Your task to perform on an android device: Show the shopping cart on walmart. Add usb-a to the cart on walmart Image 0: 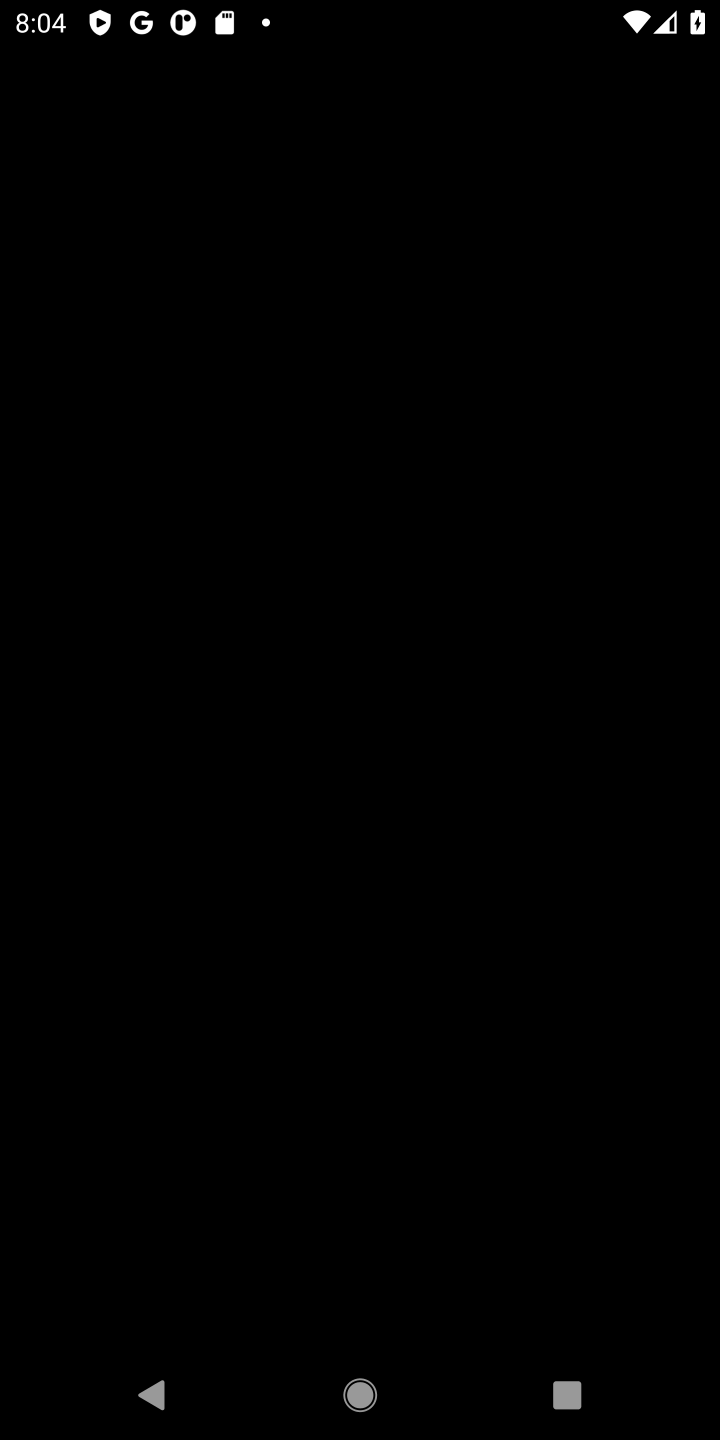
Step 0: press home button
Your task to perform on an android device: Show the shopping cart on walmart. Add usb-a to the cart on walmart Image 1: 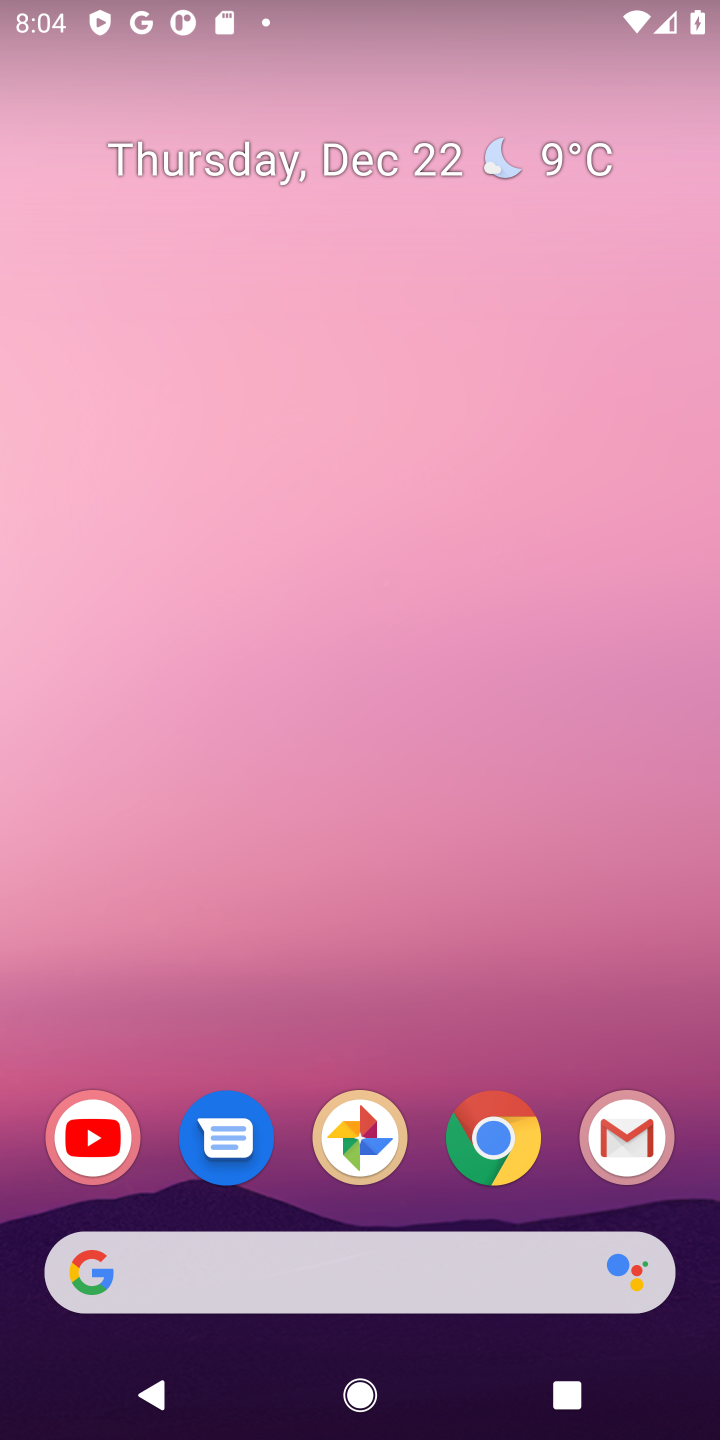
Step 1: click (464, 1124)
Your task to perform on an android device: Show the shopping cart on walmart. Add usb-a to the cart on walmart Image 2: 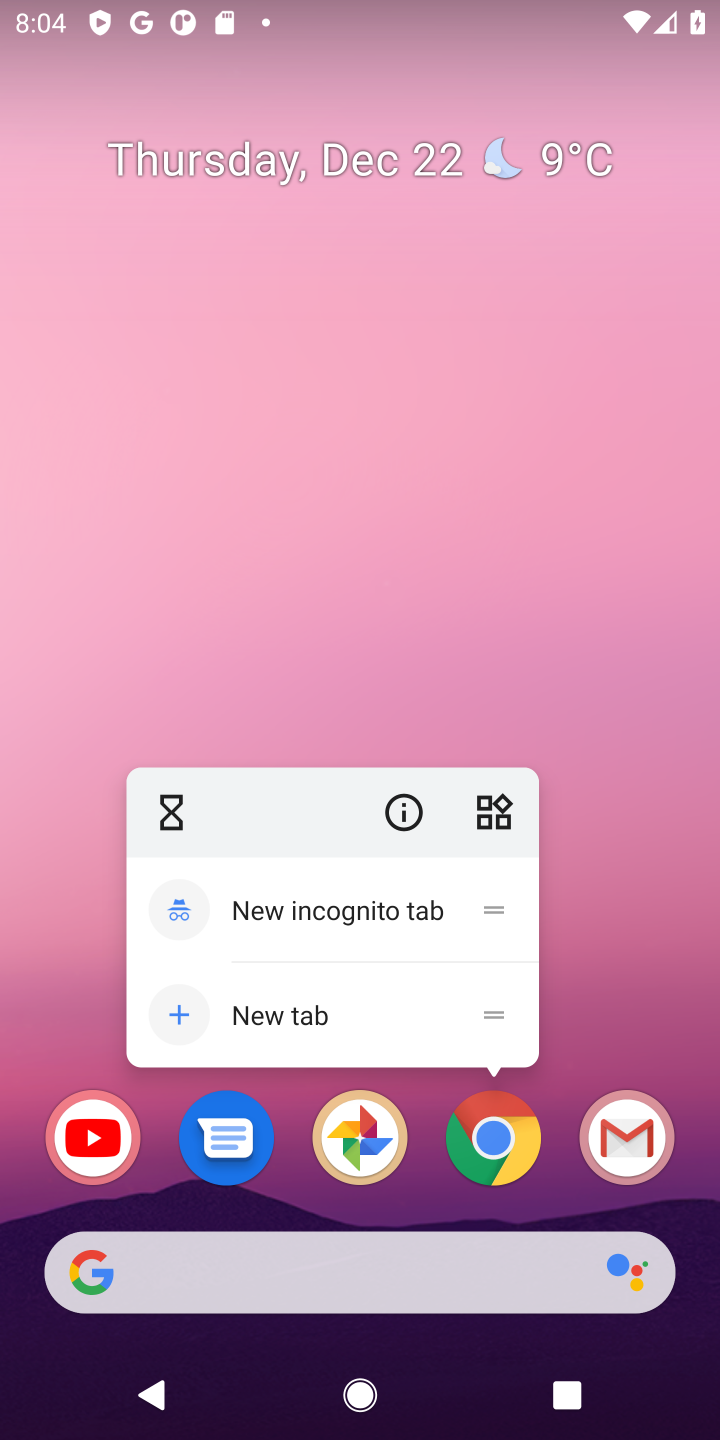
Step 2: click (496, 1176)
Your task to perform on an android device: Show the shopping cart on walmart. Add usb-a to the cart on walmart Image 3: 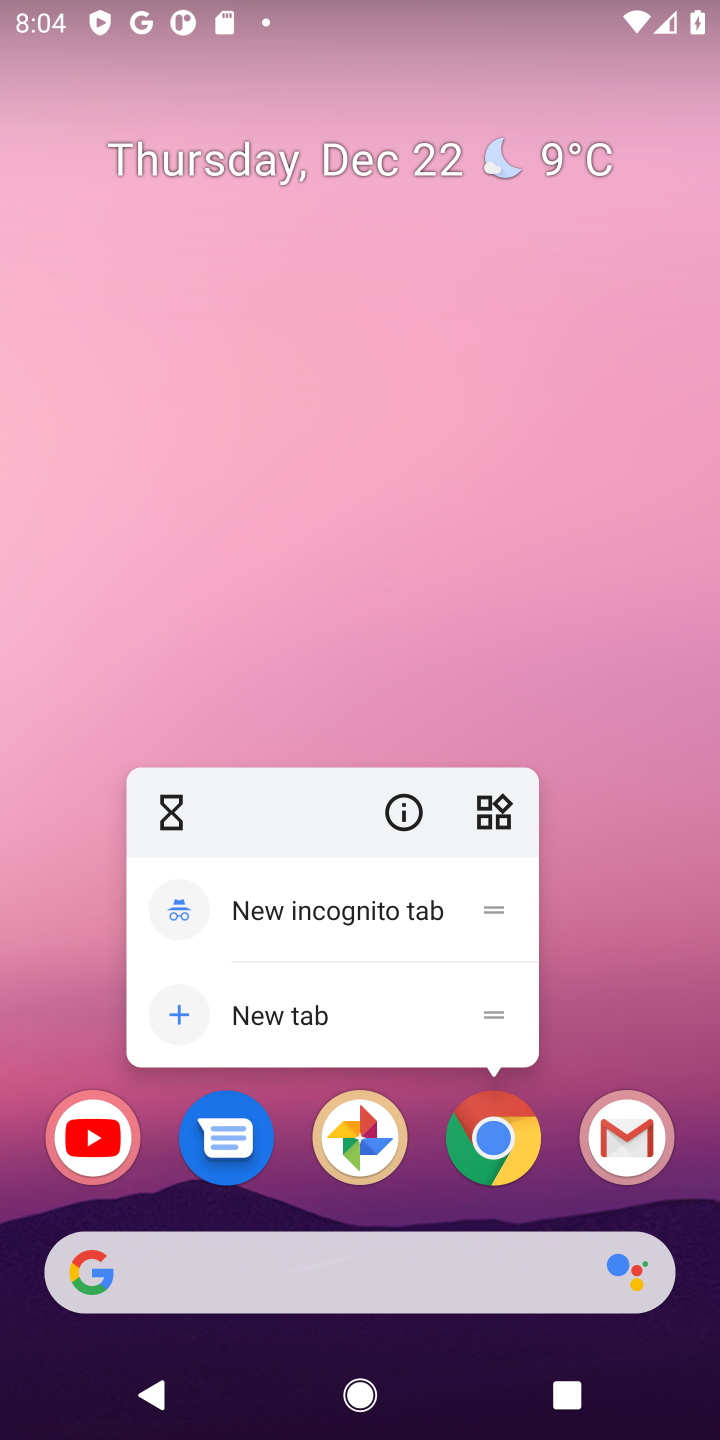
Step 3: click (496, 1176)
Your task to perform on an android device: Show the shopping cart on walmart. Add usb-a to the cart on walmart Image 4: 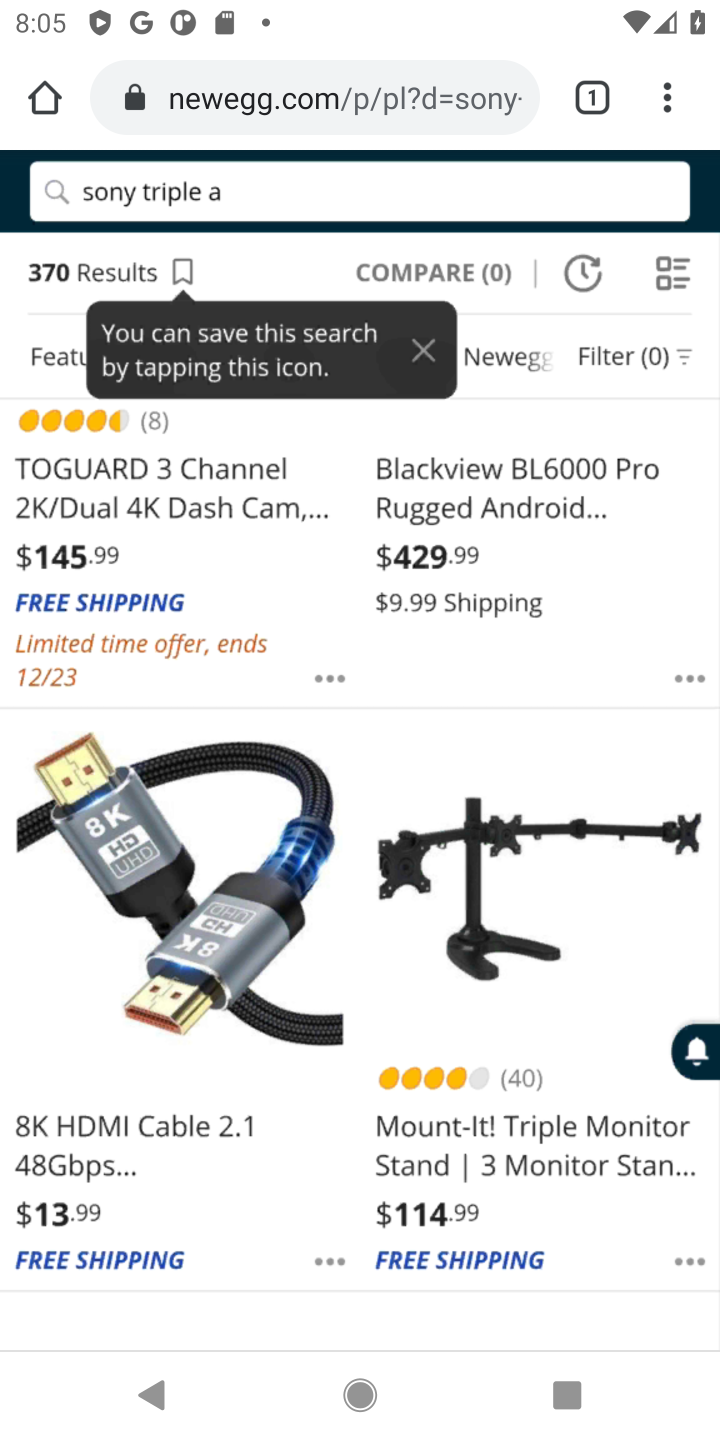
Step 4: click (212, 106)
Your task to perform on an android device: Show the shopping cart on walmart. Add usb-a to the cart on walmart Image 5: 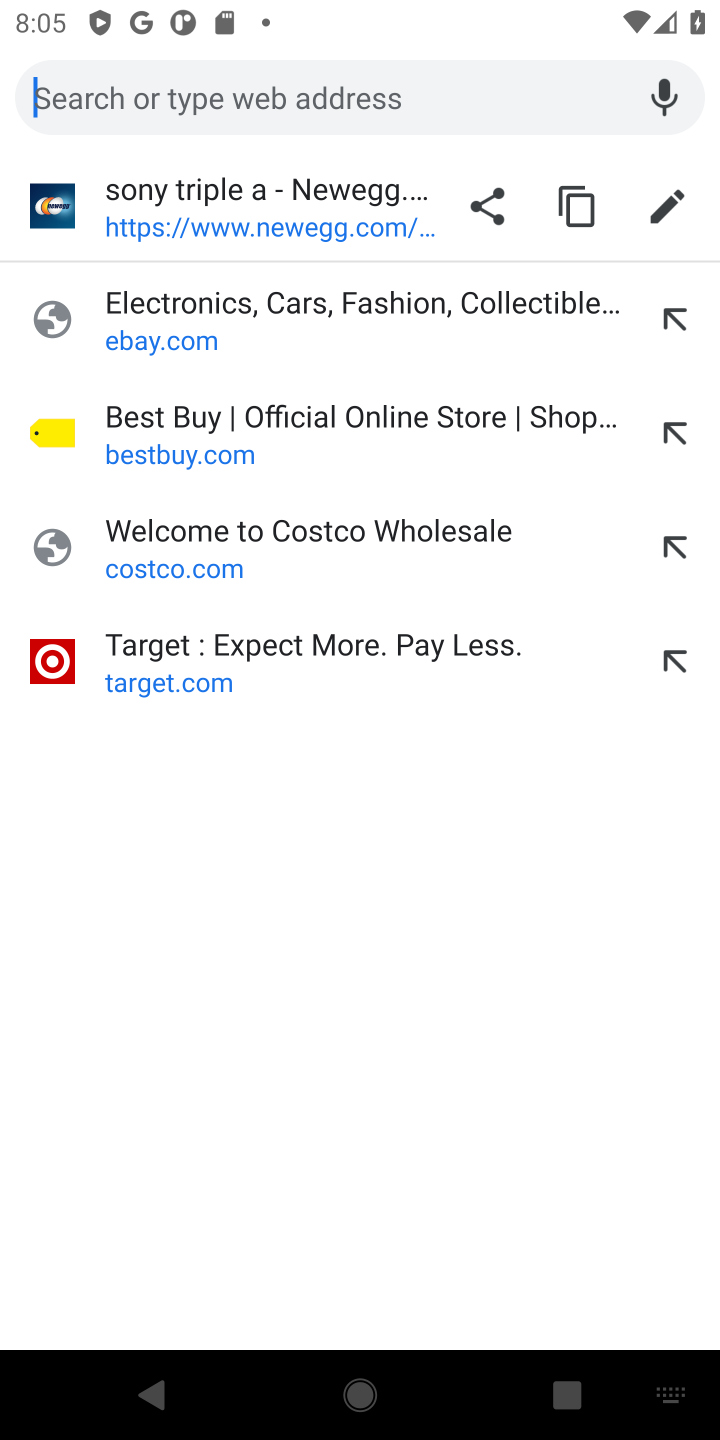
Step 5: type "walmart"
Your task to perform on an android device: Show the shopping cart on walmart. Add usb-a to the cart on walmart Image 6: 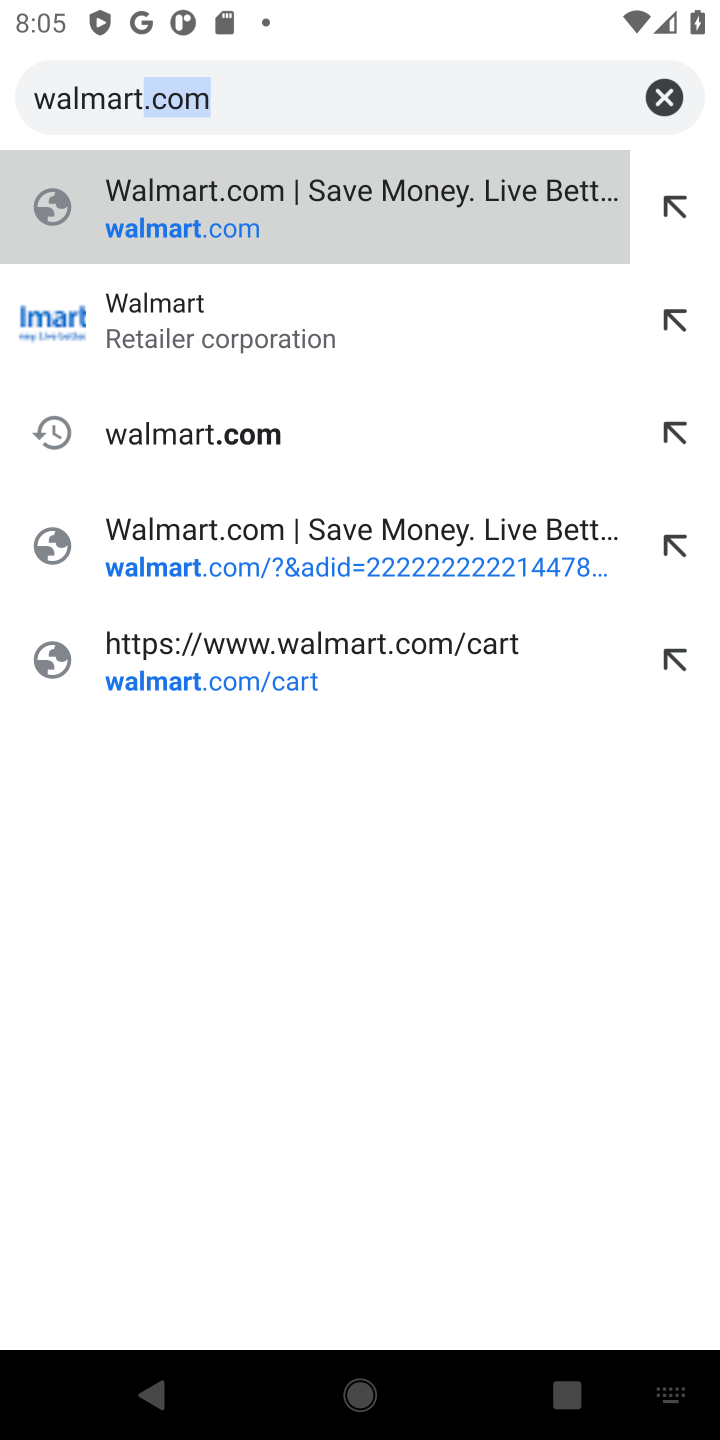
Step 6: click (222, 188)
Your task to perform on an android device: Show the shopping cart on walmart. Add usb-a to the cart on walmart Image 7: 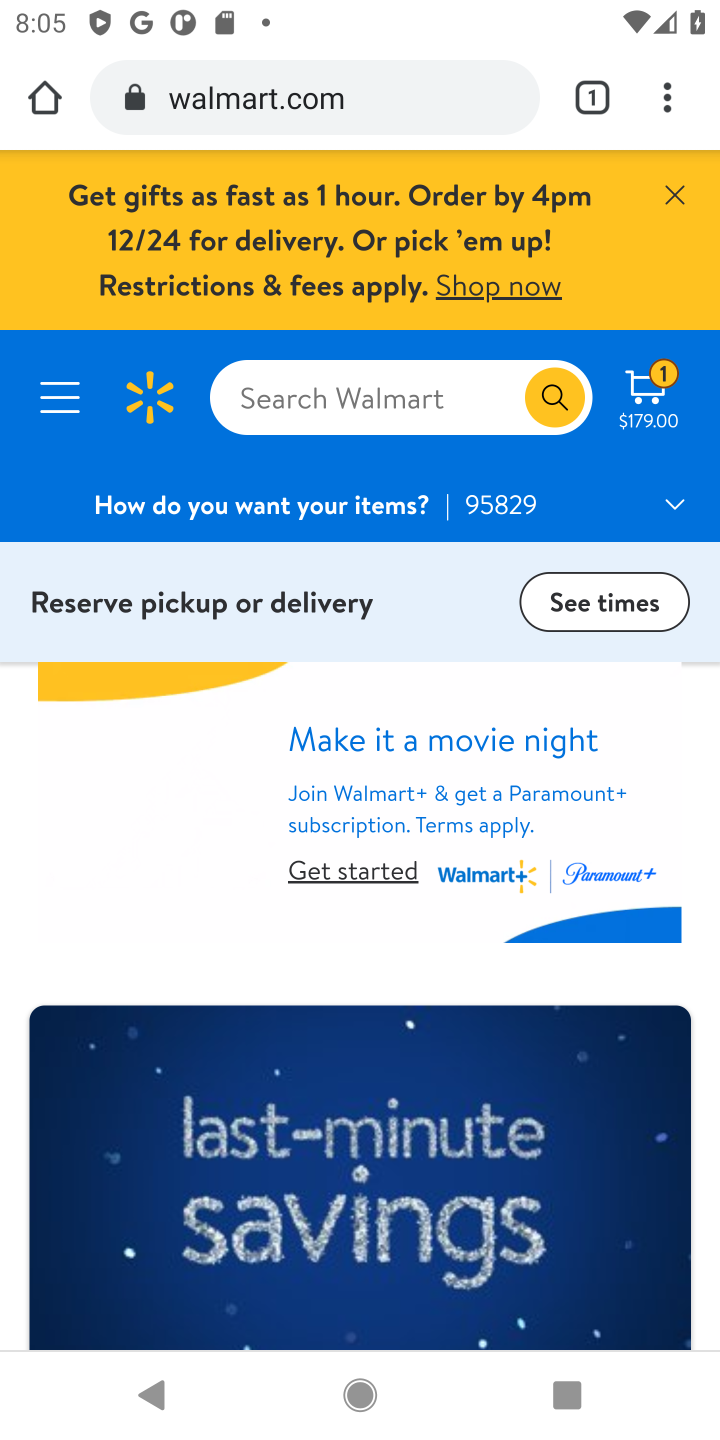
Step 7: click (667, 195)
Your task to perform on an android device: Show the shopping cart on walmart. Add usb-a to the cart on walmart Image 8: 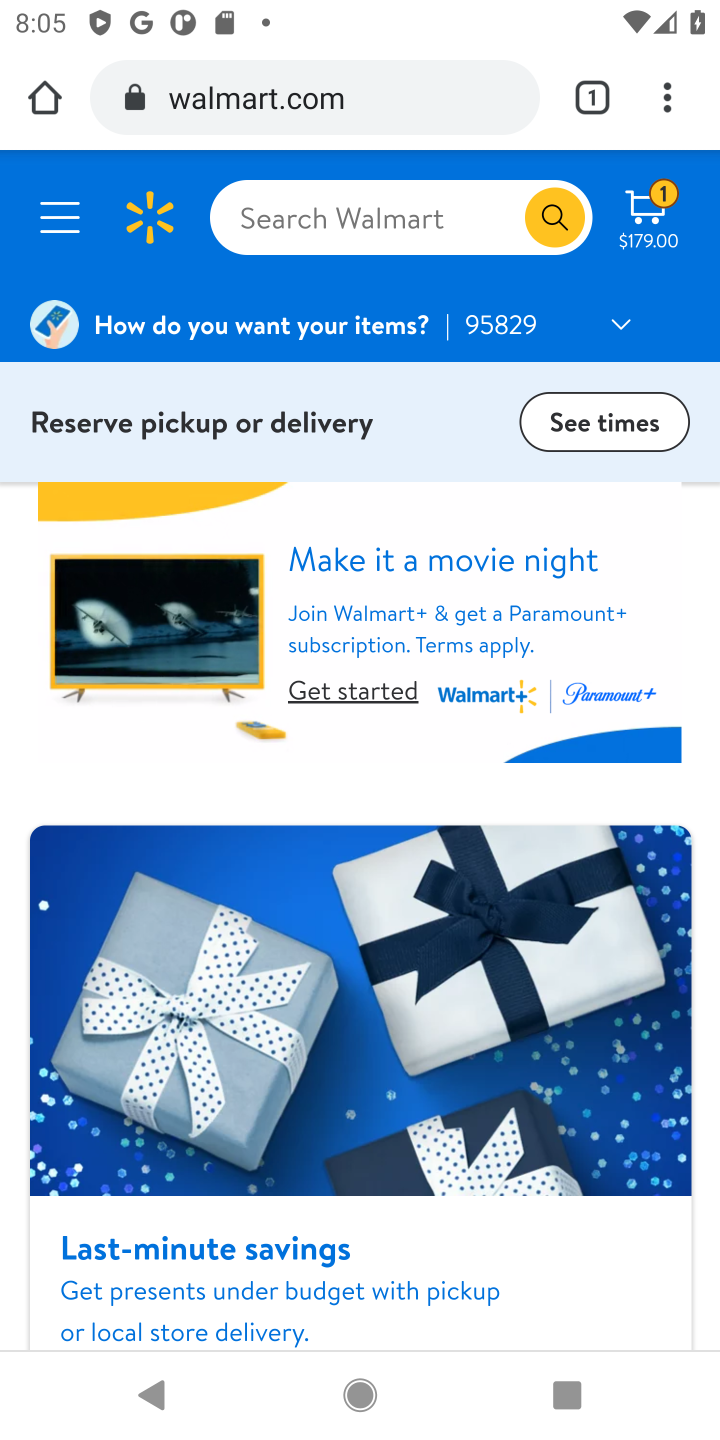
Step 8: click (647, 230)
Your task to perform on an android device: Show the shopping cart on walmart. Add usb-a to the cart on walmart Image 9: 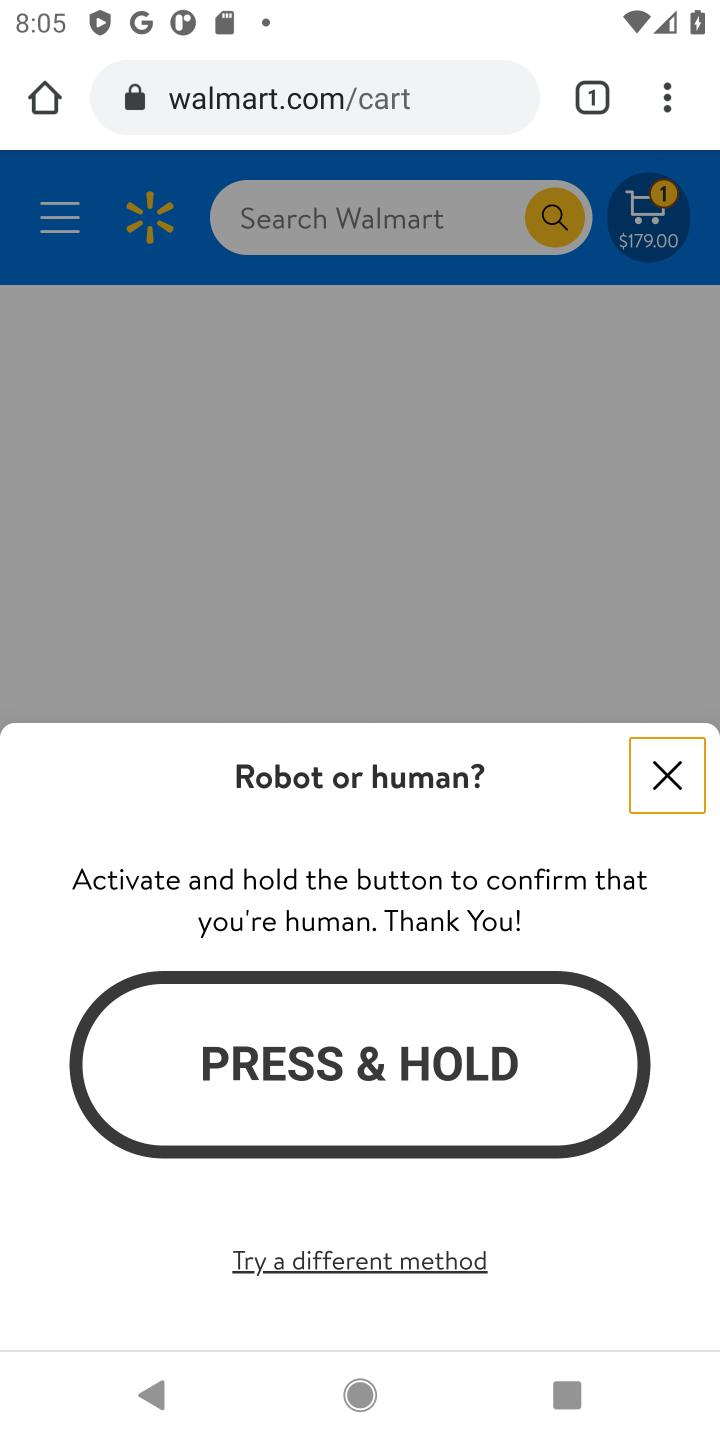
Step 9: click (392, 1093)
Your task to perform on an android device: Show the shopping cart on walmart. Add usb-a to the cart on walmart Image 10: 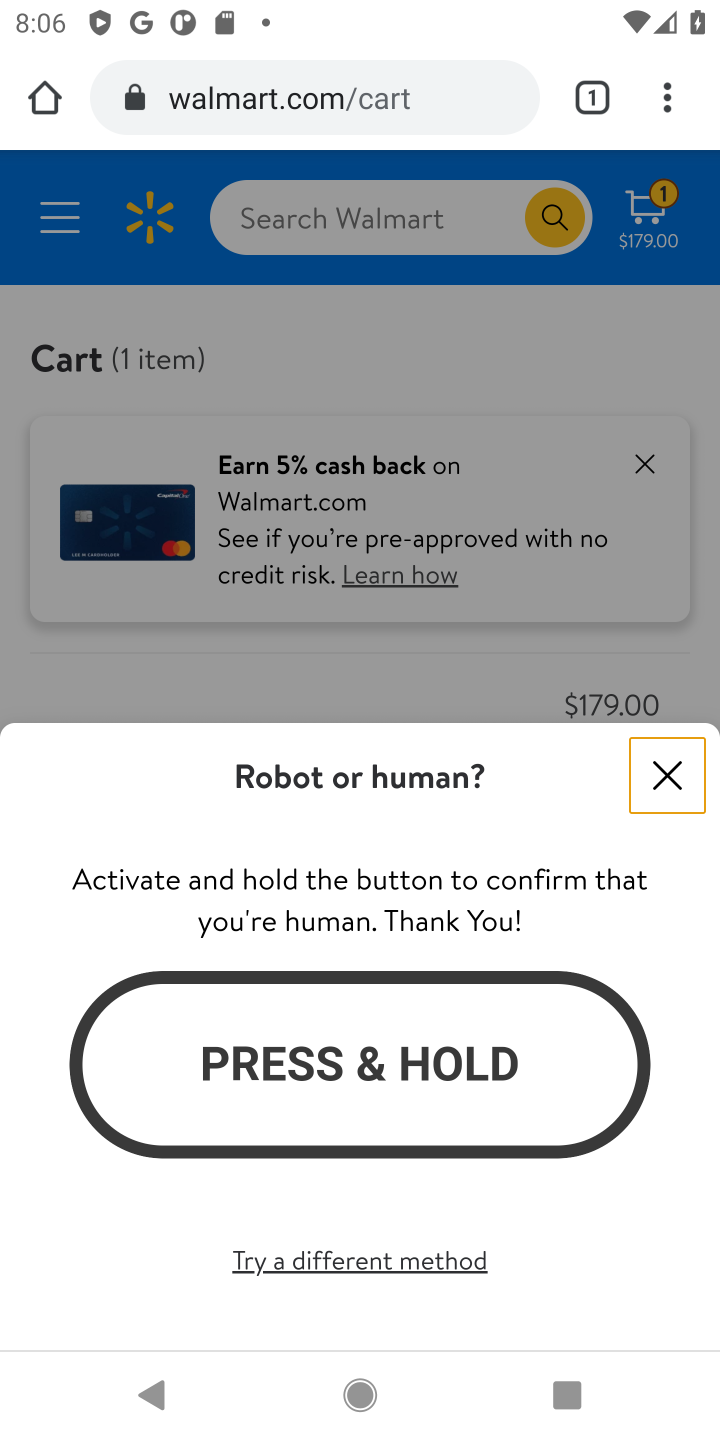
Step 10: click (669, 768)
Your task to perform on an android device: Show the shopping cart on walmart. Add usb-a to the cart on walmart Image 11: 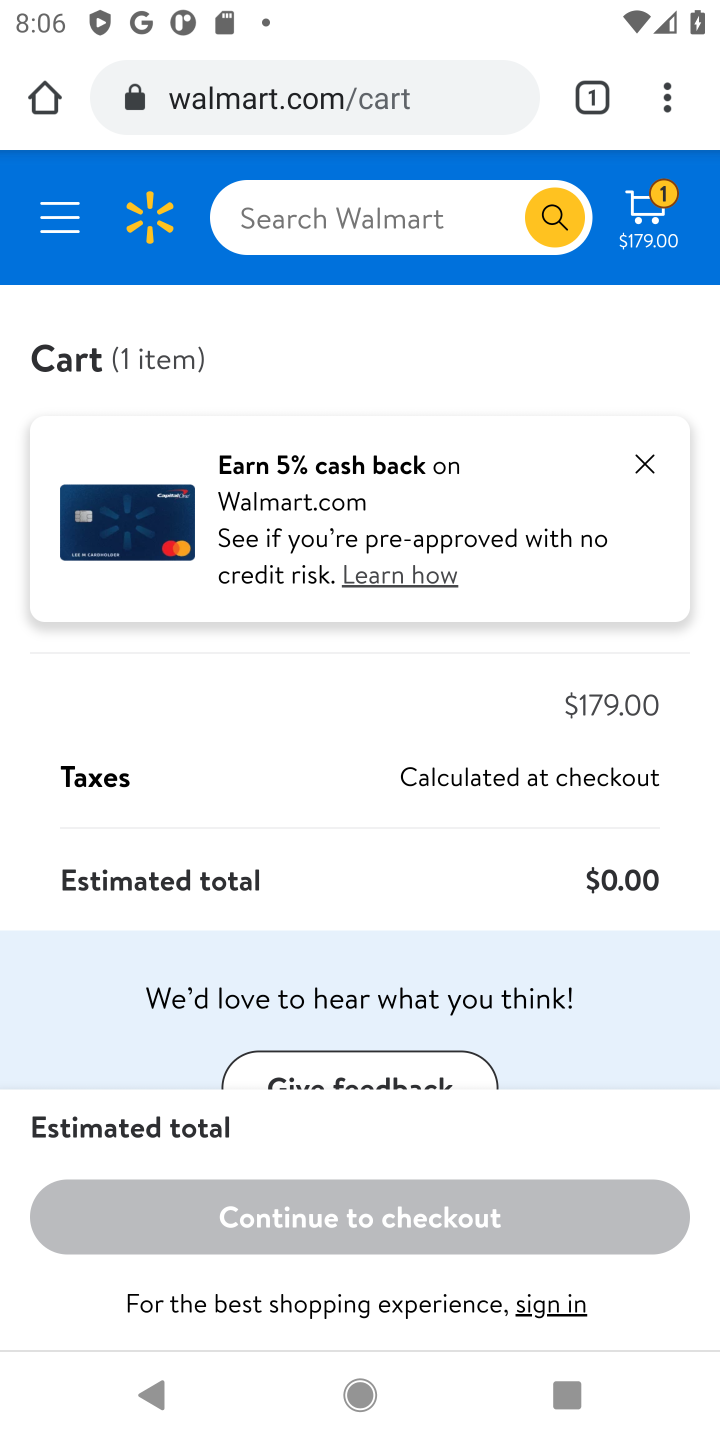
Step 11: click (669, 768)
Your task to perform on an android device: Show the shopping cart on walmart. Add usb-a to the cart on walmart Image 12: 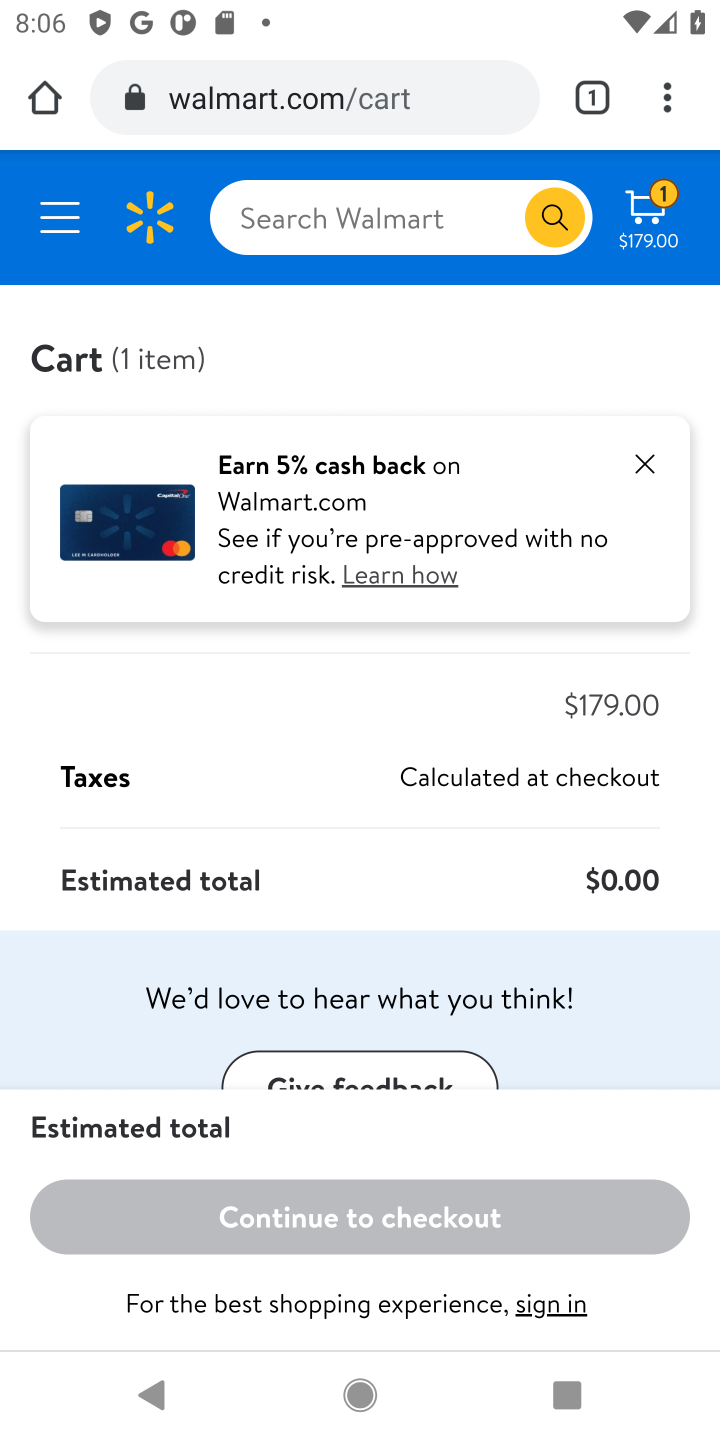
Step 12: drag from (510, 999) to (667, 1077)
Your task to perform on an android device: Show the shopping cart on walmart. Add usb-a to the cart on walmart Image 13: 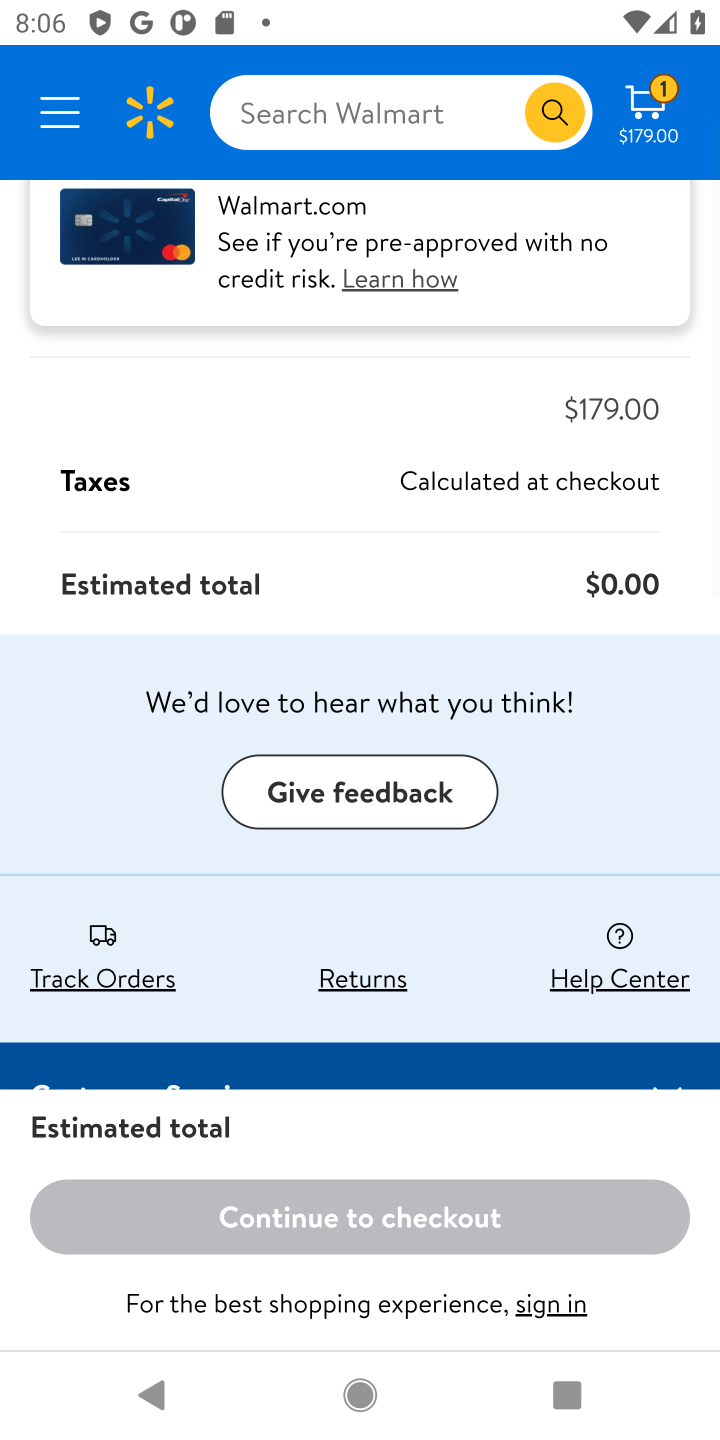
Step 13: click (338, 190)
Your task to perform on an android device: Show the shopping cart on walmart. Add usb-a to the cart on walmart Image 14: 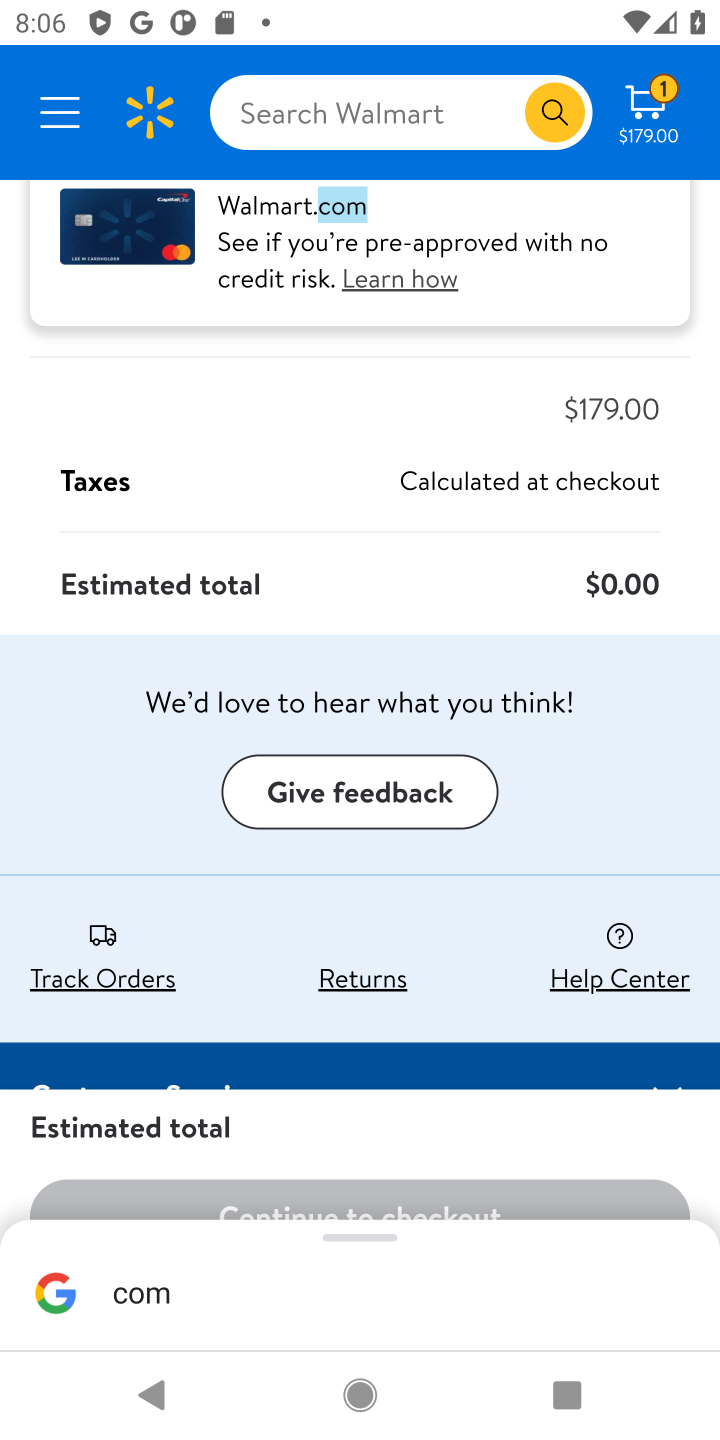
Step 14: click (365, 94)
Your task to perform on an android device: Show the shopping cart on walmart. Add usb-a to the cart on walmart Image 15: 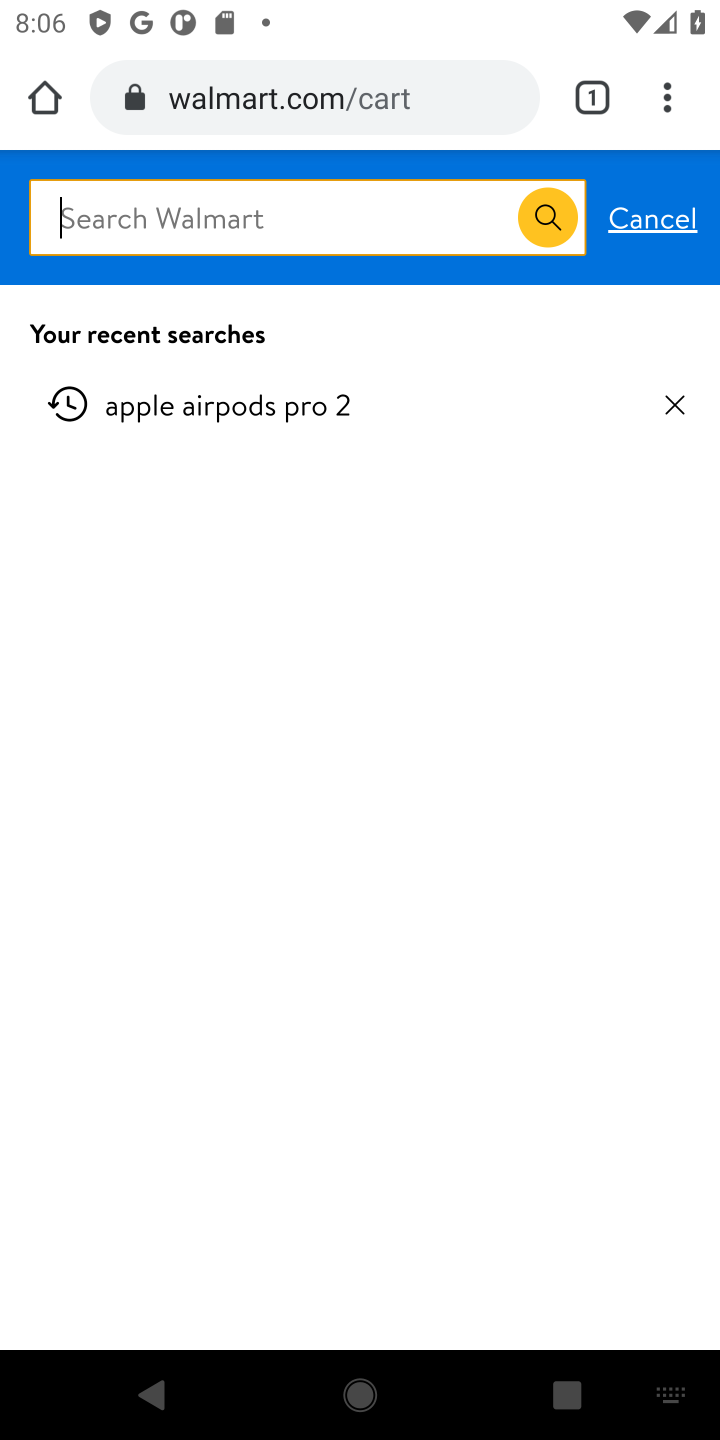
Step 15: click (377, 117)
Your task to perform on an android device: Show the shopping cart on walmart. Add usb-a to the cart on walmart Image 16: 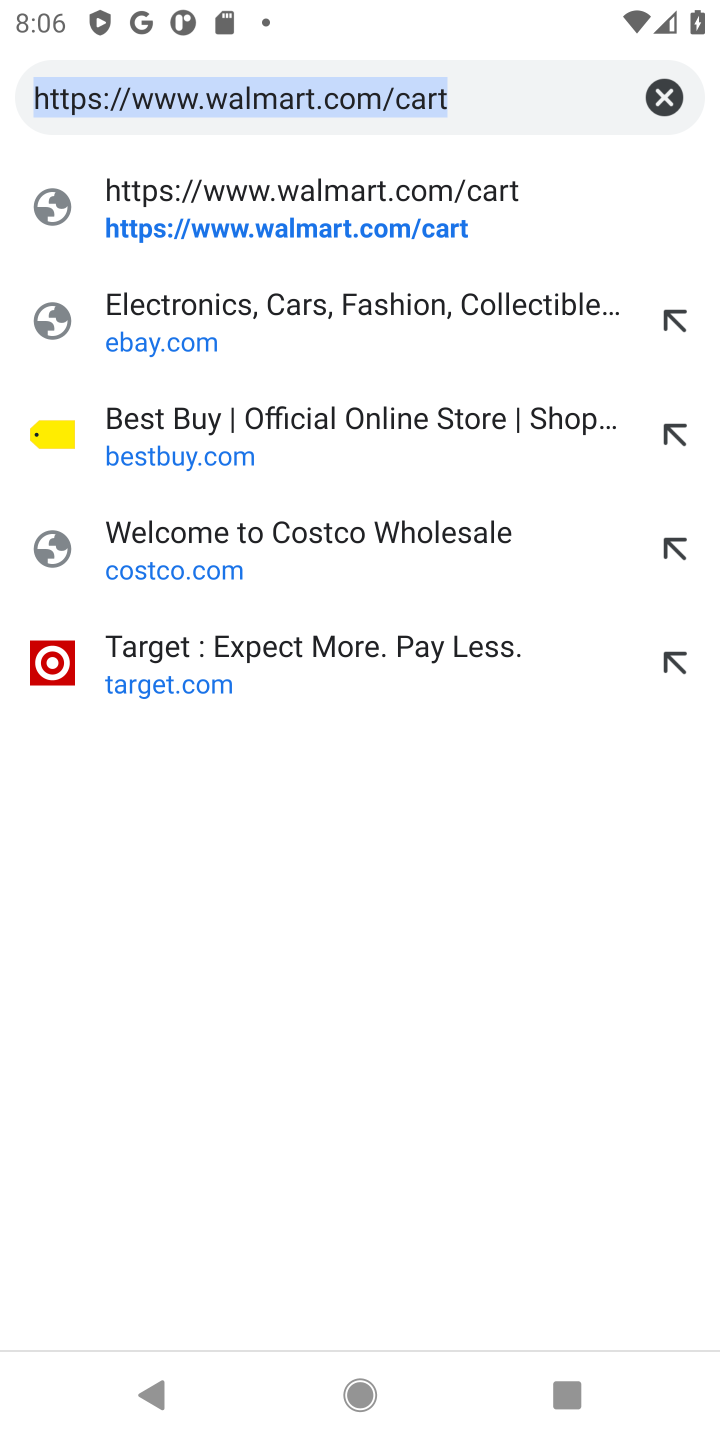
Step 16: press back button
Your task to perform on an android device: Show the shopping cart on walmart. Add usb-a to the cart on walmart Image 17: 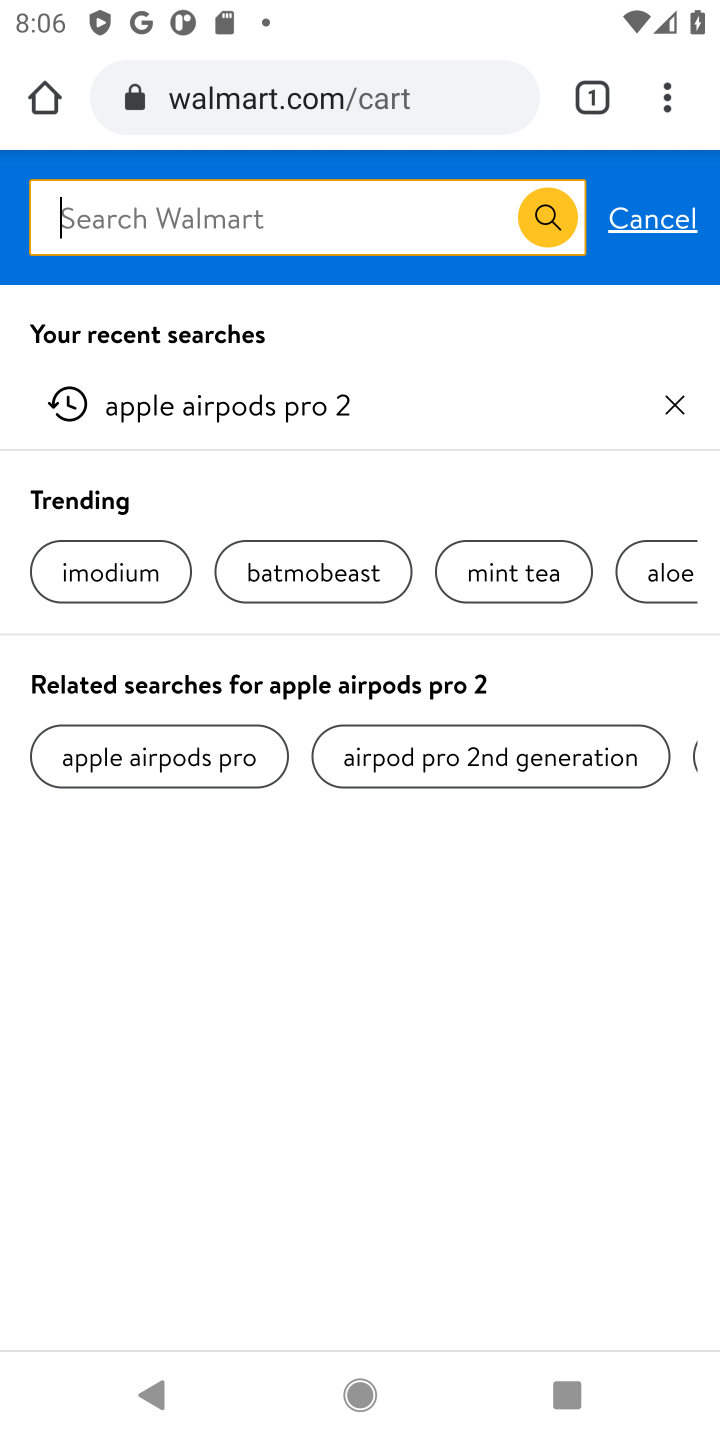
Step 17: click (384, 206)
Your task to perform on an android device: Show the shopping cart on walmart. Add usb-a to the cart on walmart Image 18: 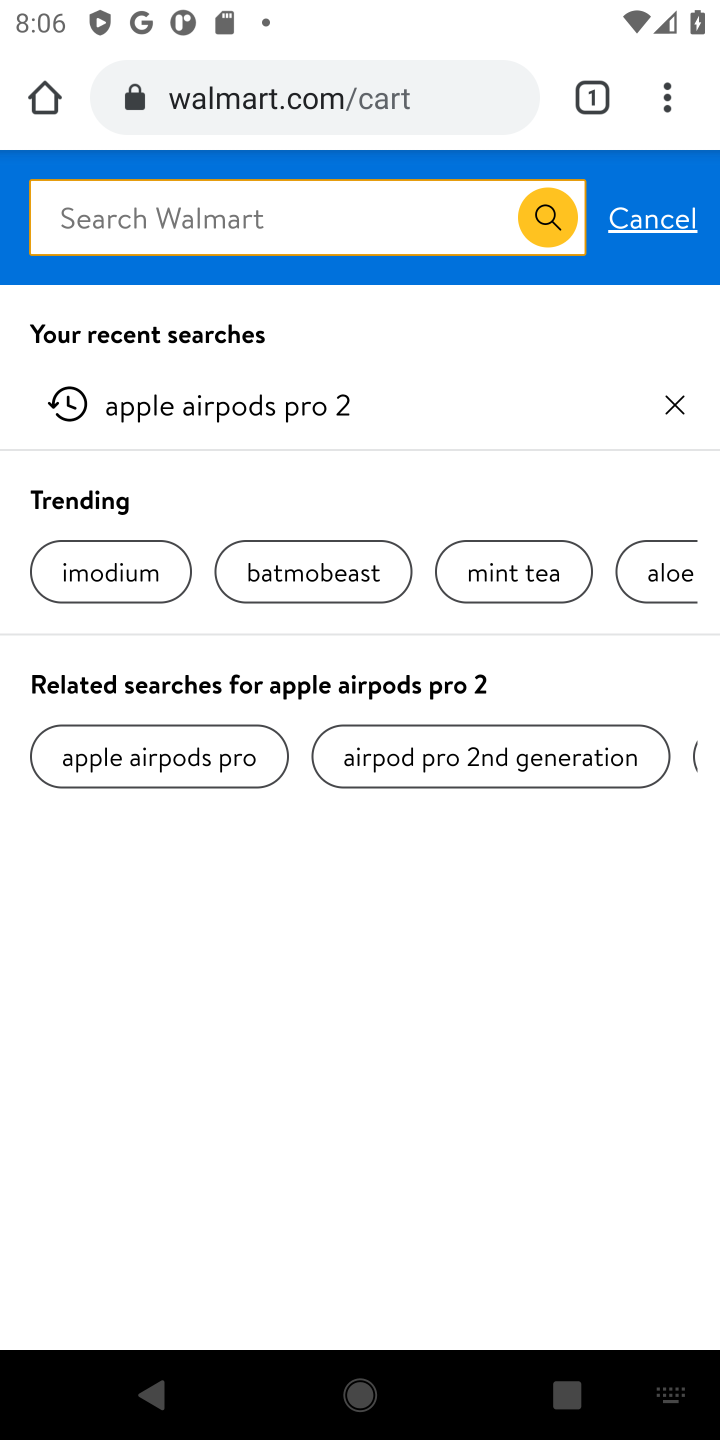
Step 18: press enter
Your task to perform on an android device: Show the shopping cart on walmart. Add usb-a to the cart on walmart Image 19: 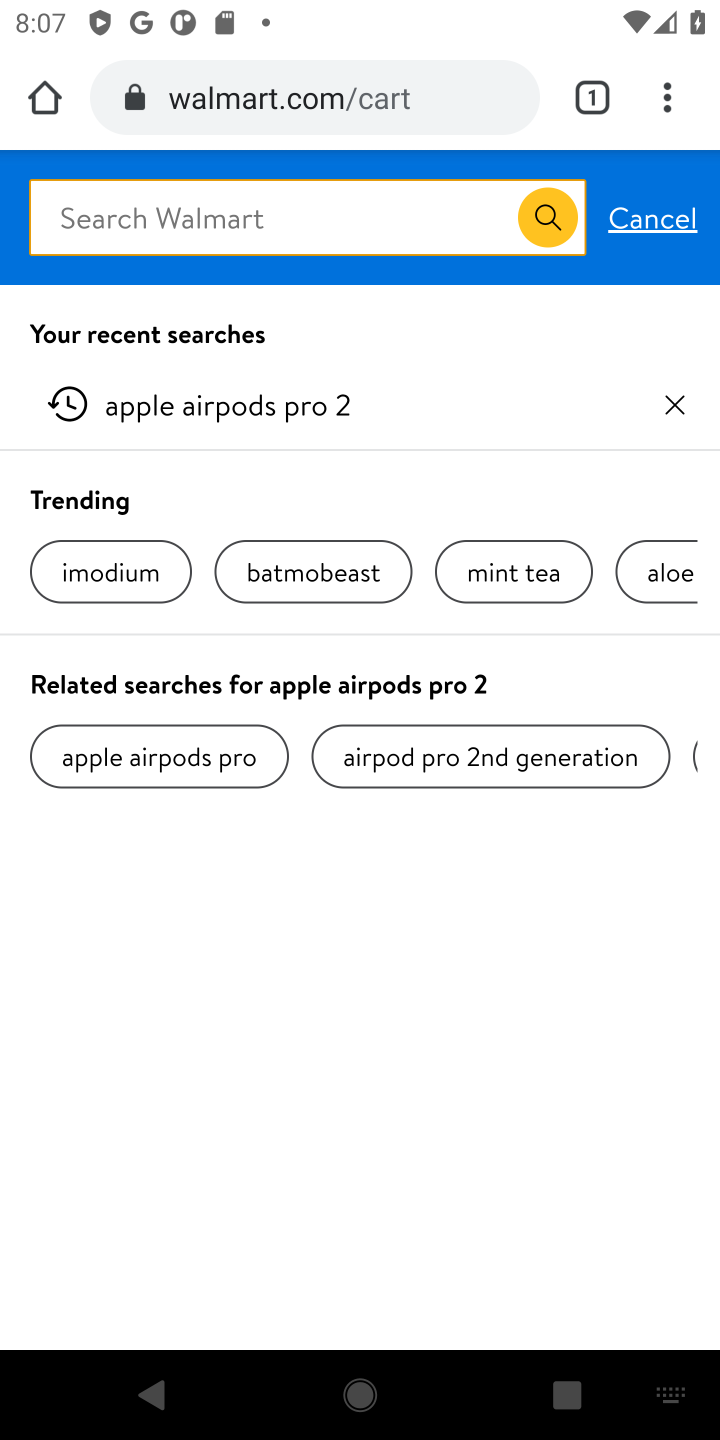
Step 19: type "usb-a"
Your task to perform on an android device: Show the shopping cart on walmart. Add usb-a to the cart on walmart Image 20: 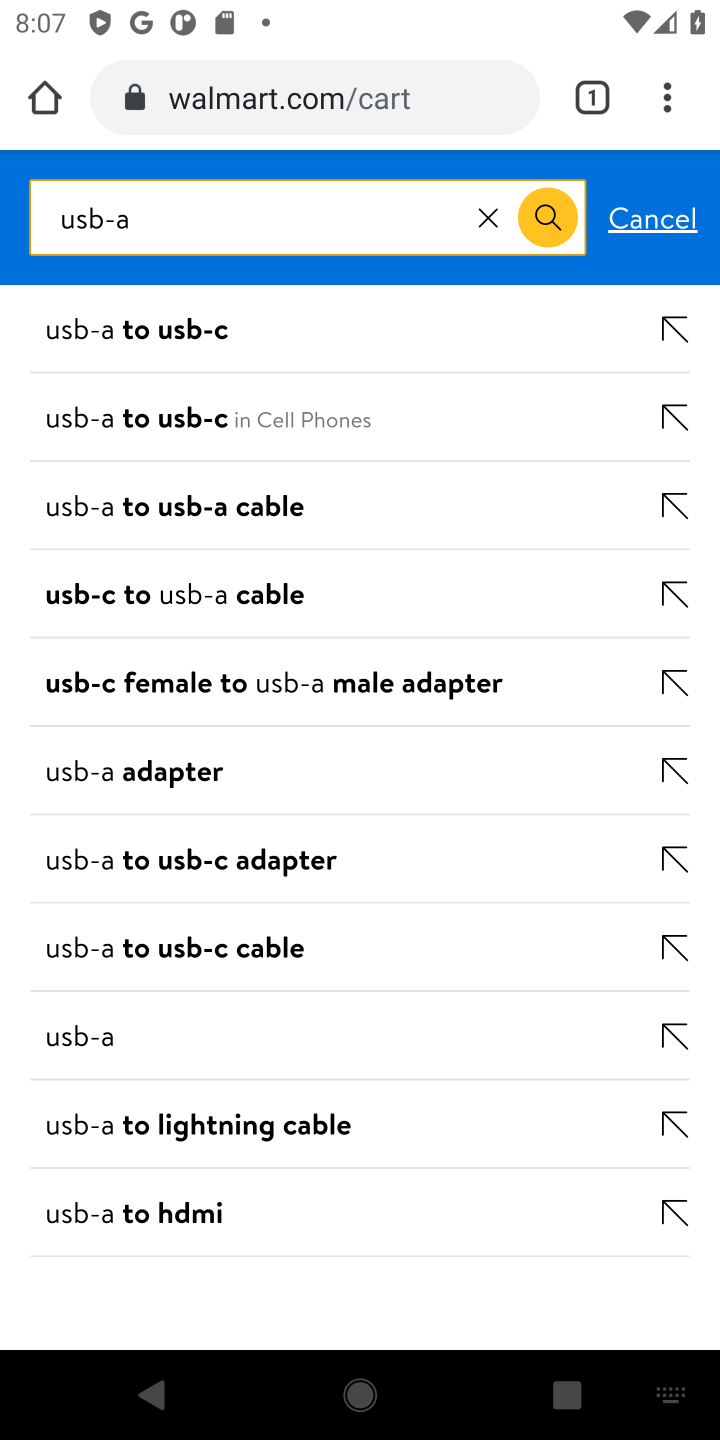
Step 20: click (103, 1044)
Your task to perform on an android device: Show the shopping cart on walmart. Add usb-a to the cart on walmart Image 21: 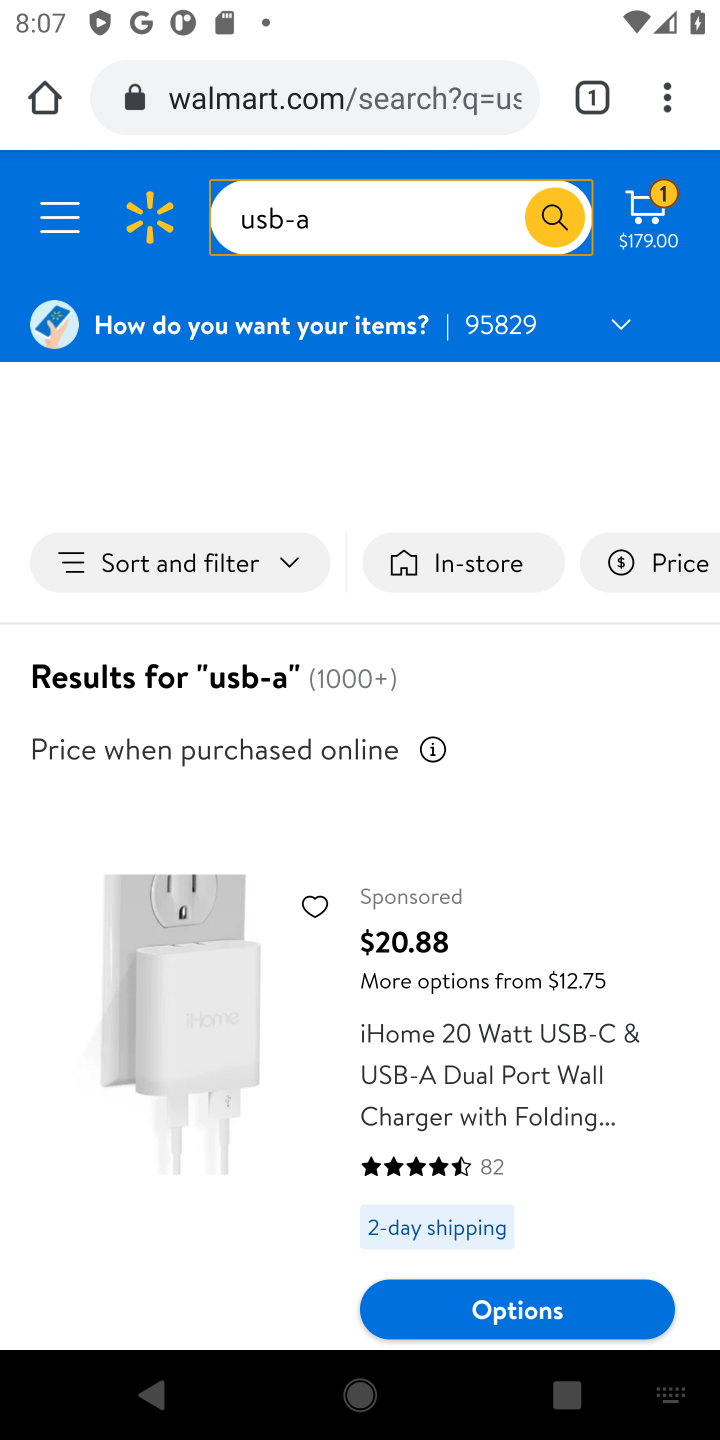
Step 21: drag from (371, 992) to (365, 314)
Your task to perform on an android device: Show the shopping cart on walmart. Add usb-a to the cart on walmart Image 22: 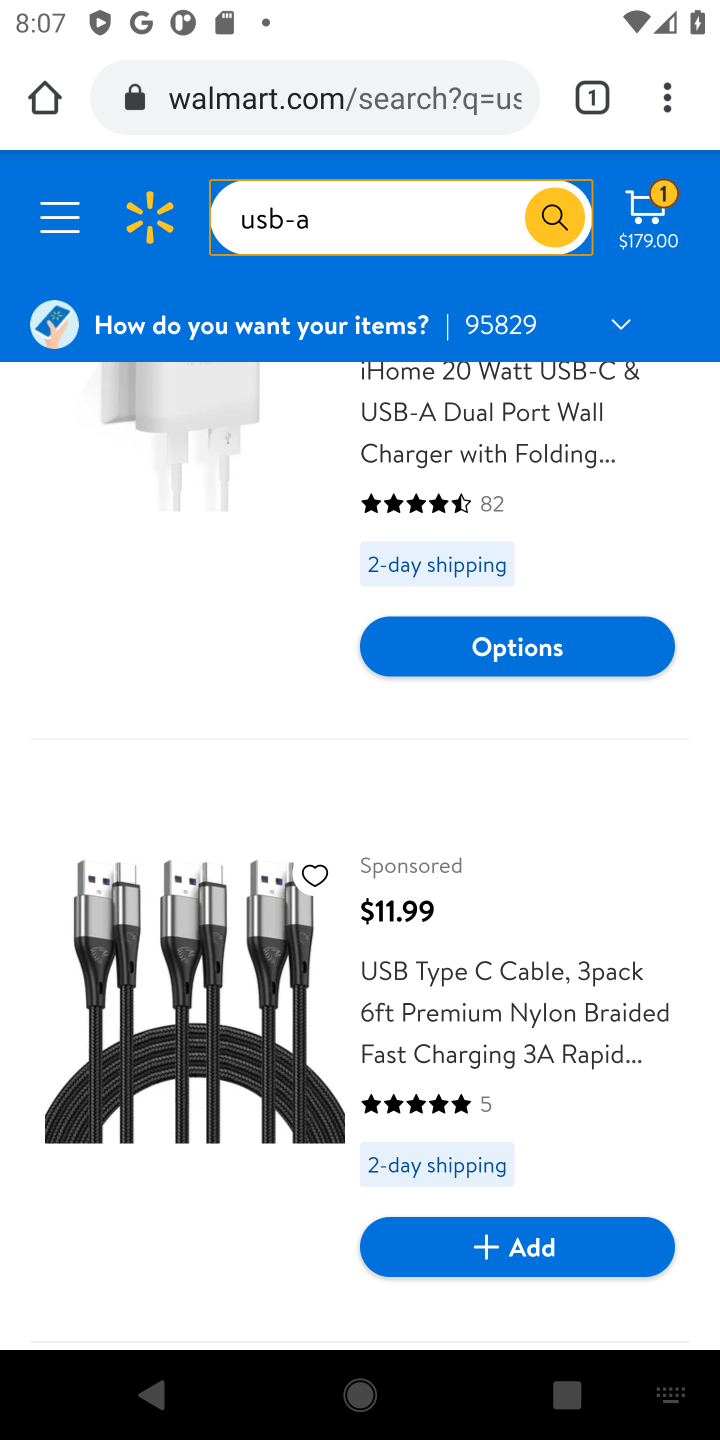
Step 22: drag from (177, 983) to (217, 568)
Your task to perform on an android device: Show the shopping cart on walmart. Add usb-a to the cart on walmart Image 23: 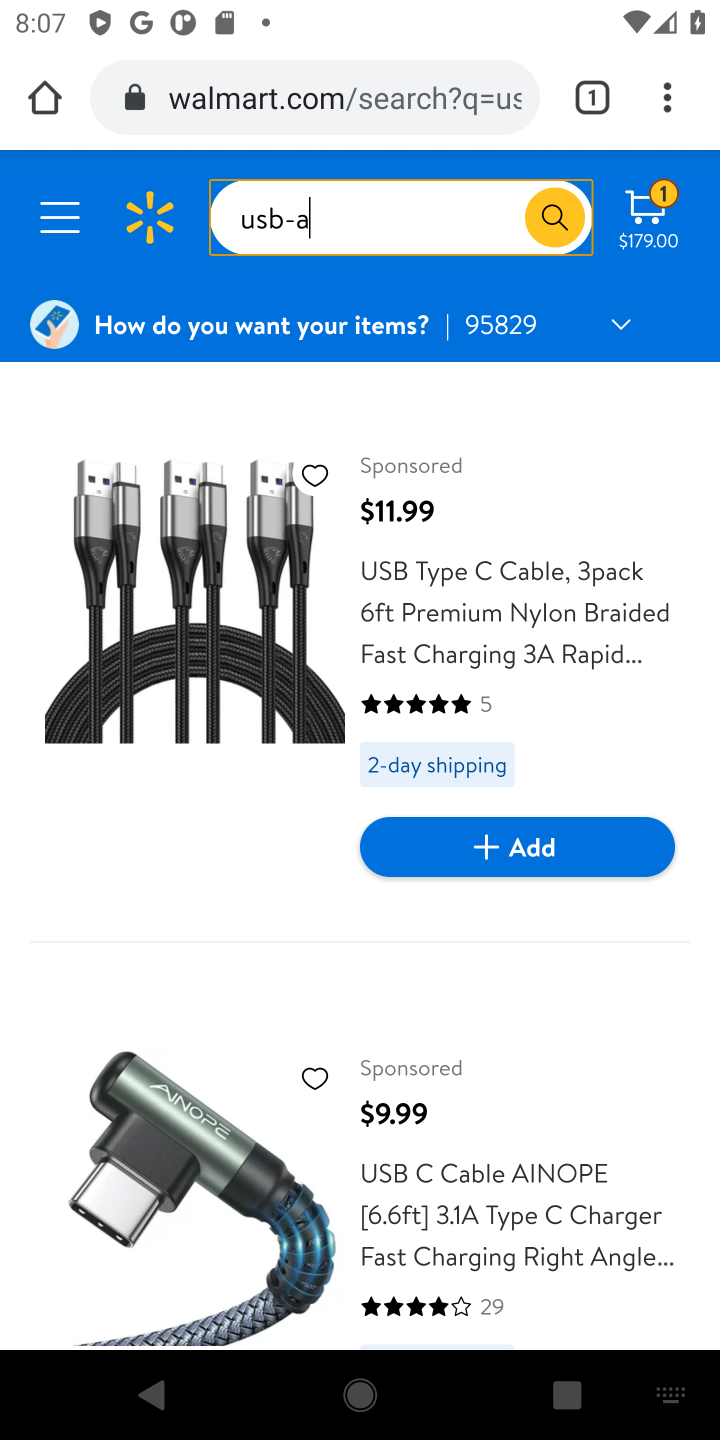
Step 23: drag from (160, 1103) to (225, 522)
Your task to perform on an android device: Show the shopping cart on walmart. Add usb-a to the cart on walmart Image 24: 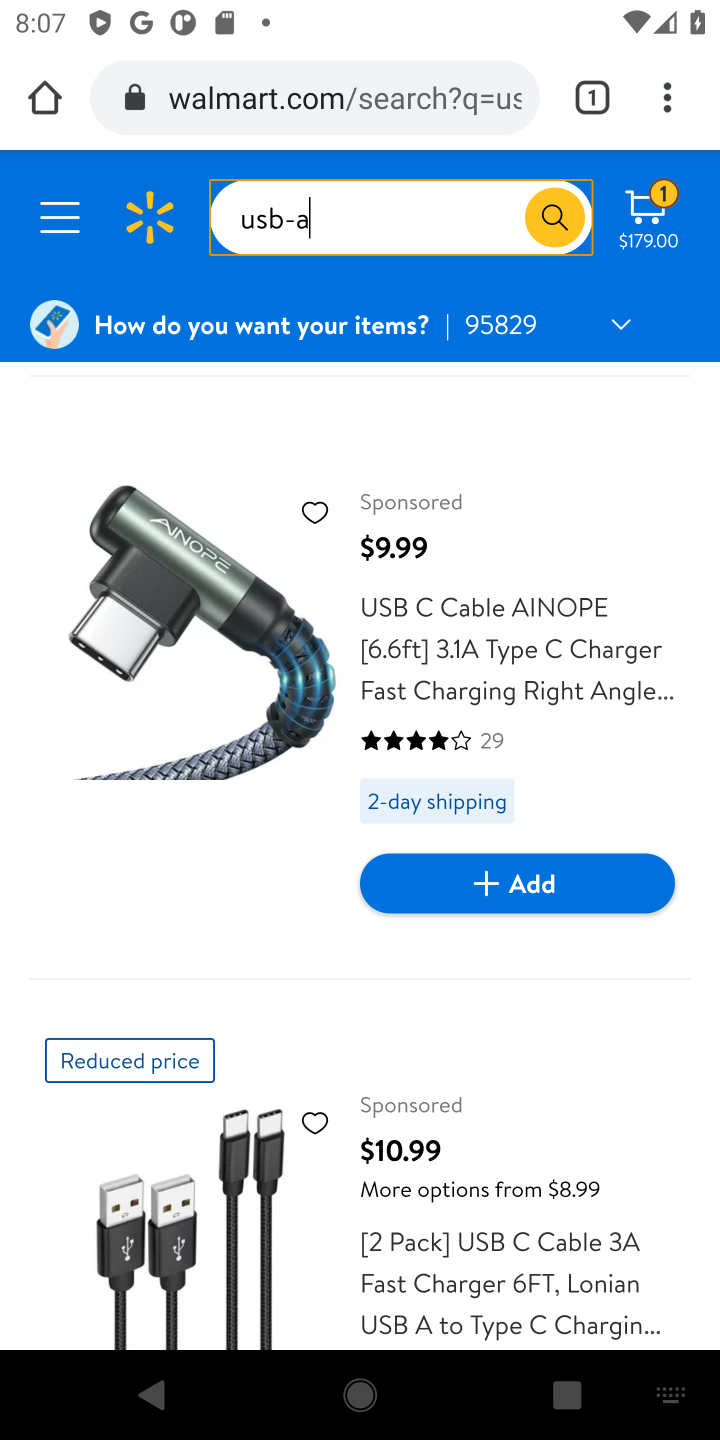
Step 24: drag from (227, 550) to (304, 1273)
Your task to perform on an android device: Show the shopping cart on walmart. Add usb-a to the cart on walmart Image 25: 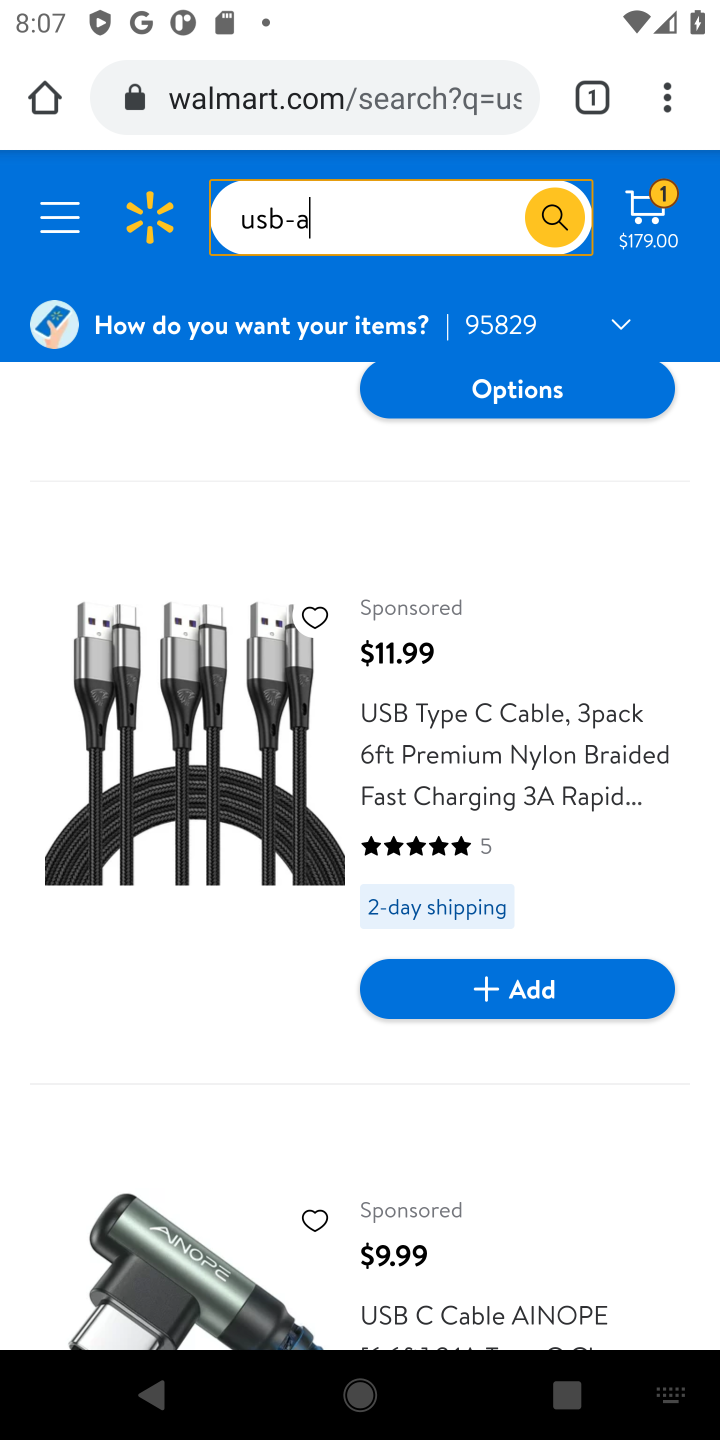
Step 25: drag from (237, 625) to (339, 1308)
Your task to perform on an android device: Show the shopping cart on walmart. Add usb-a to the cart on walmart Image 26: 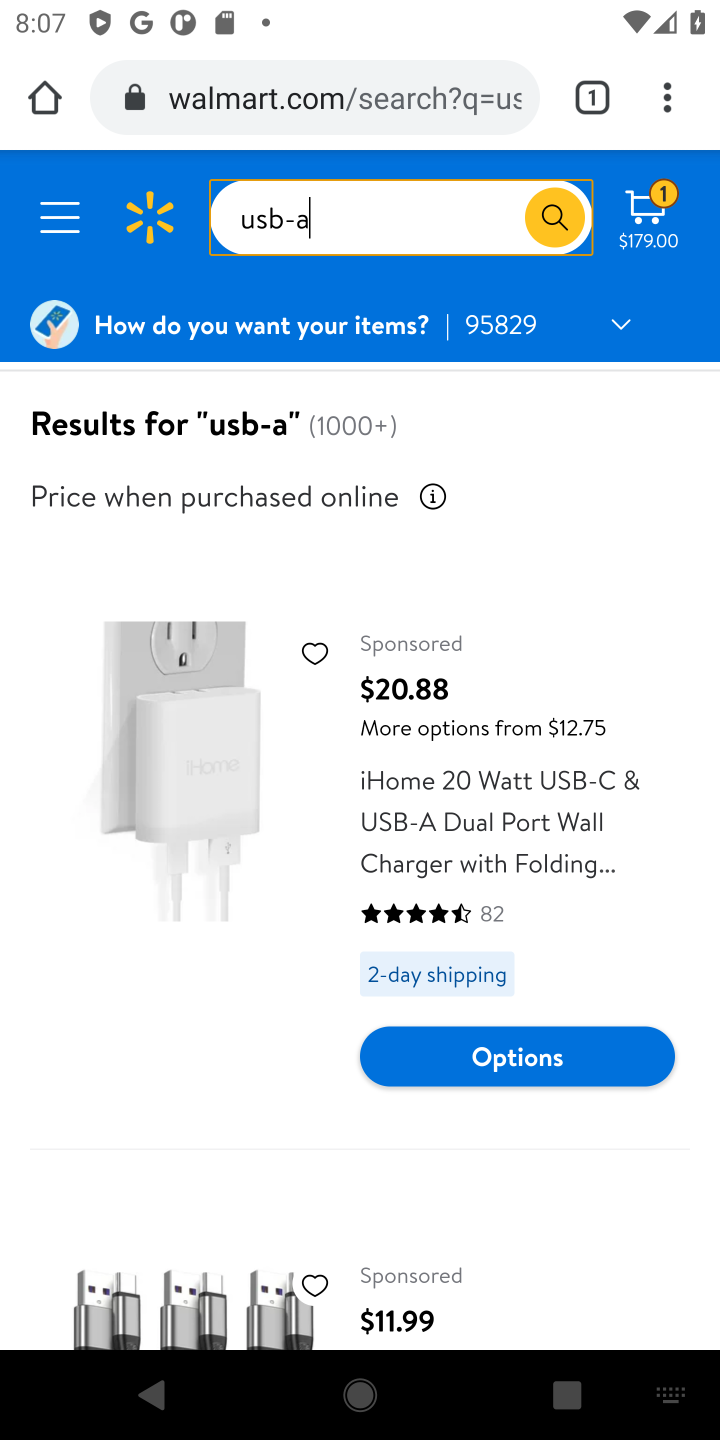
Step 26: click (156, 731)
Your task to perform on an android device: Show the shopping cart on walmart. Add usb-a to the cart on walmart Image 27: 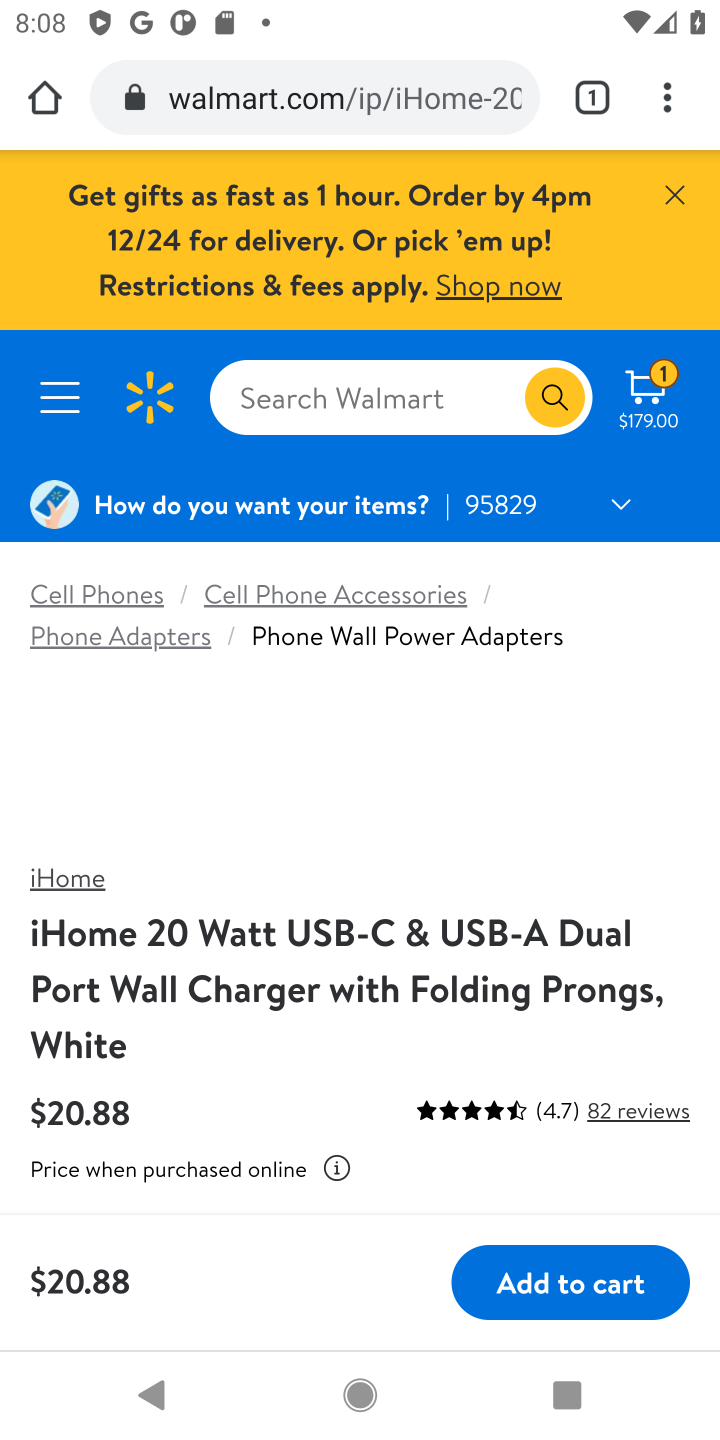
Step 27: click (567, 1258)
Your task to perform on an android device: Show the shopping cart on walmart. Add usb-a to the cart on walmart Image 28: 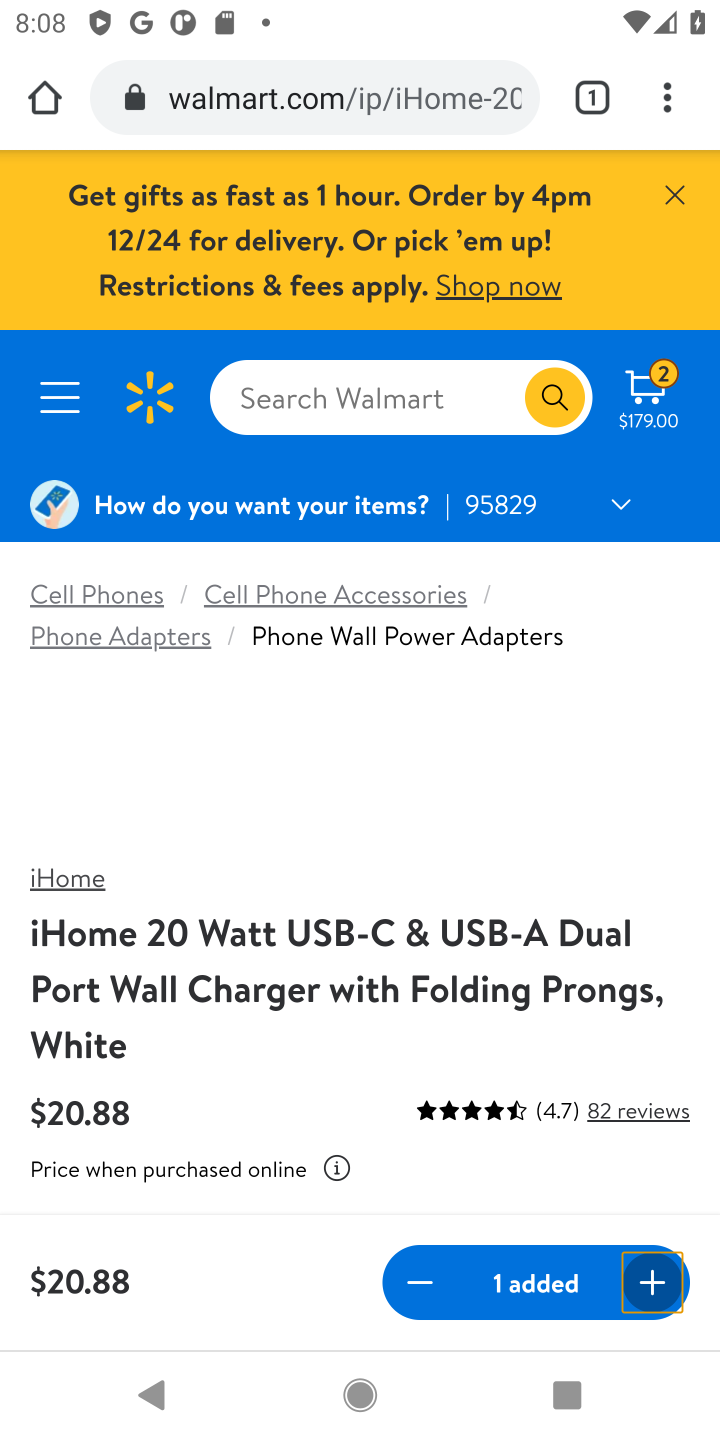
Step 28: task complete